Your task to perform on an android device: Show me popular games on the Play Store Image 0: 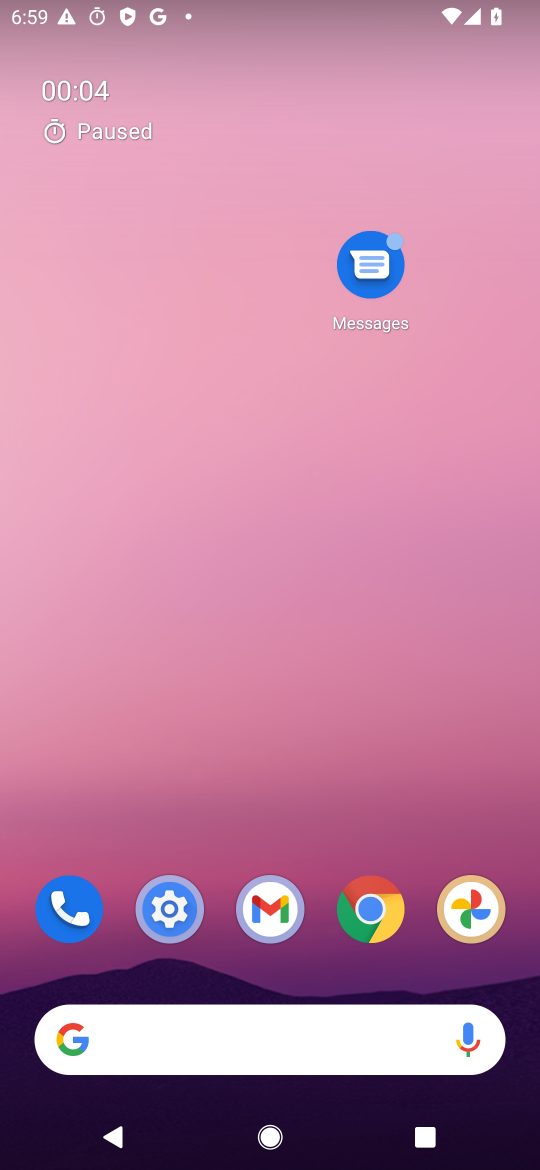
Step 0: press home button
Your task to perform on an android device: Show me popular games on the Play Store Image 1: 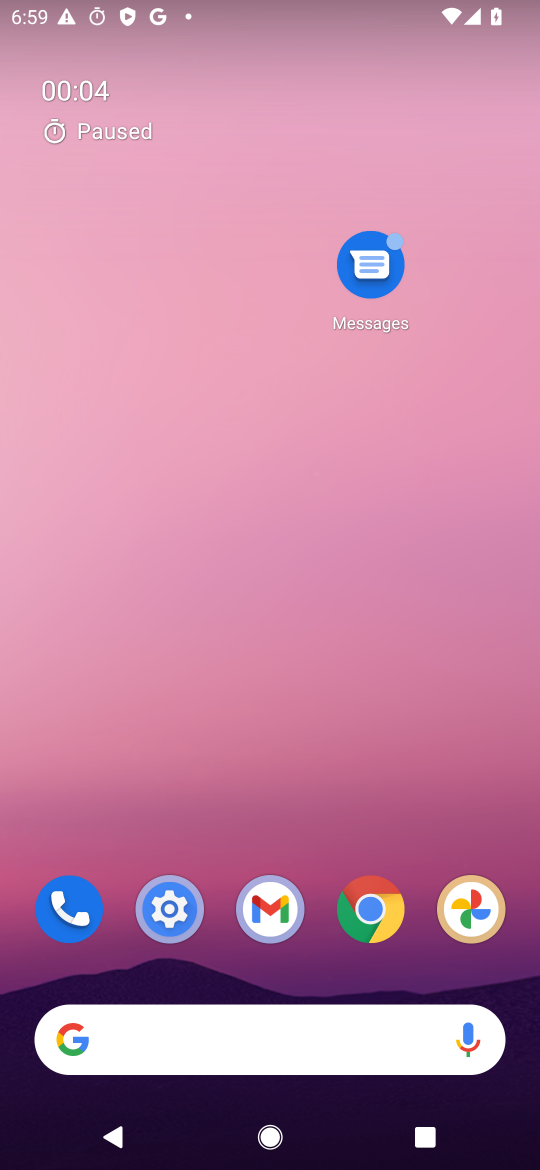
Step 1: drag from (188, 1016) to (371, 143)
Your task to perform on an android device: Show me popular games on the Play Store Image 2: 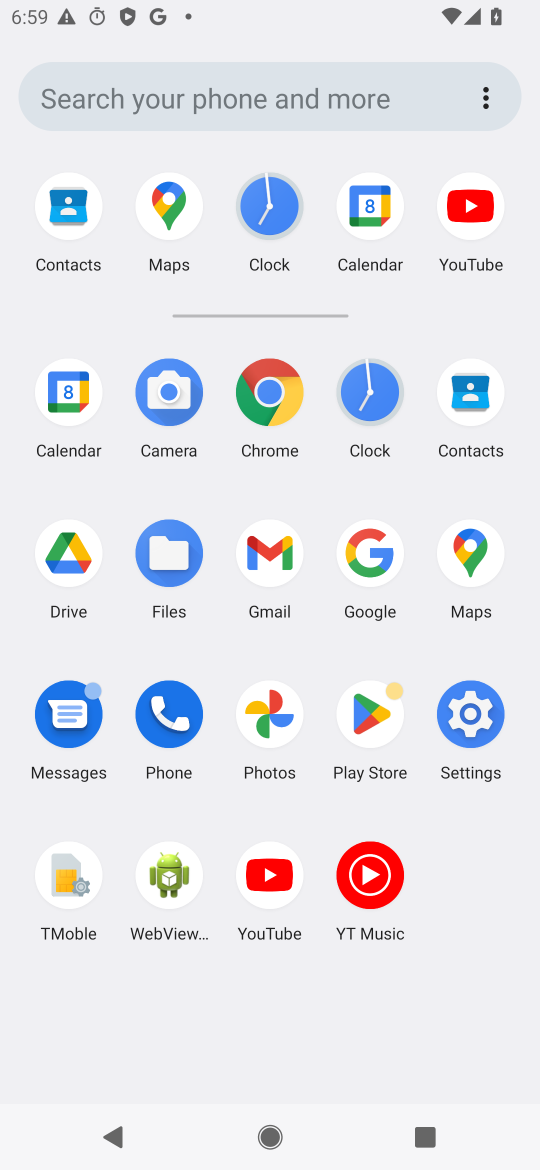
Step 2: click (366, 697)
Your task to perform on an android device: Show me popular games on the Play Store Image 3: 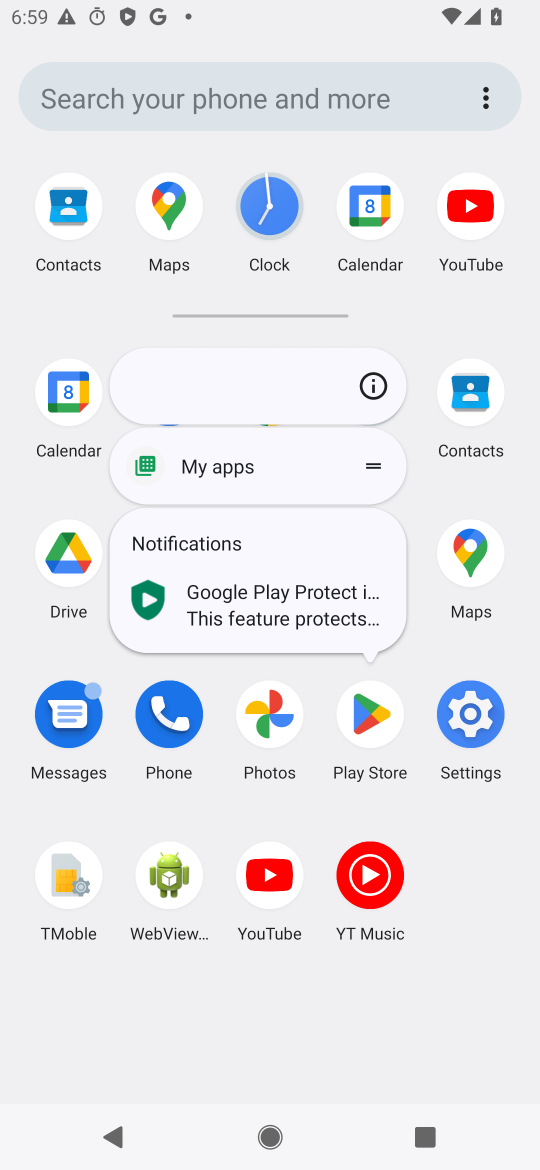
Step 3: click (365, 728)
Your task to perform on an android device: Show me popular games on the Play Store Image 4: 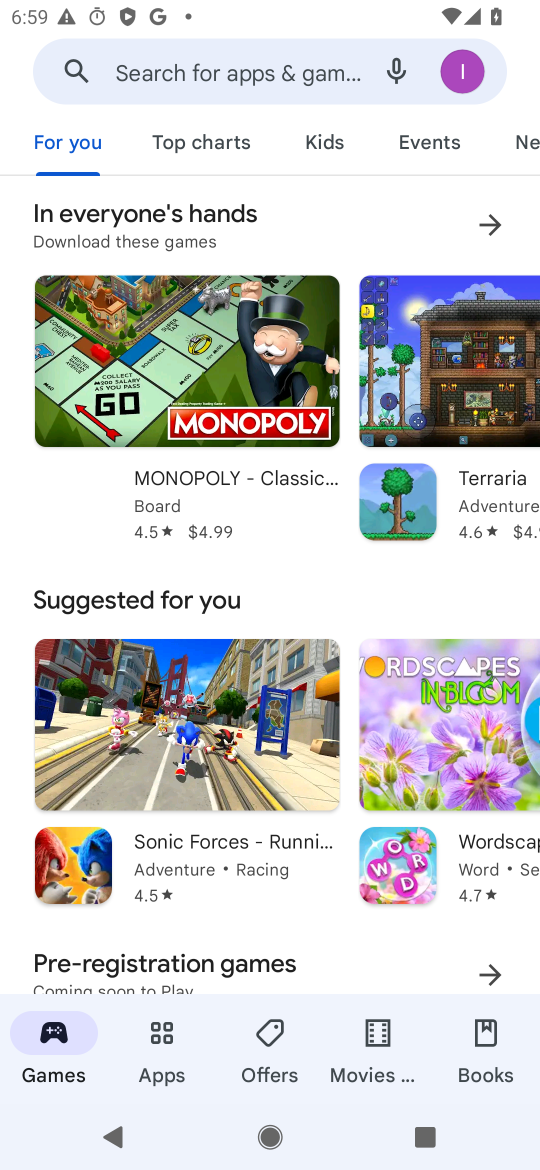
Step 4: task complete